Your task to perform on an android device: change the clock display to analog Image 0: 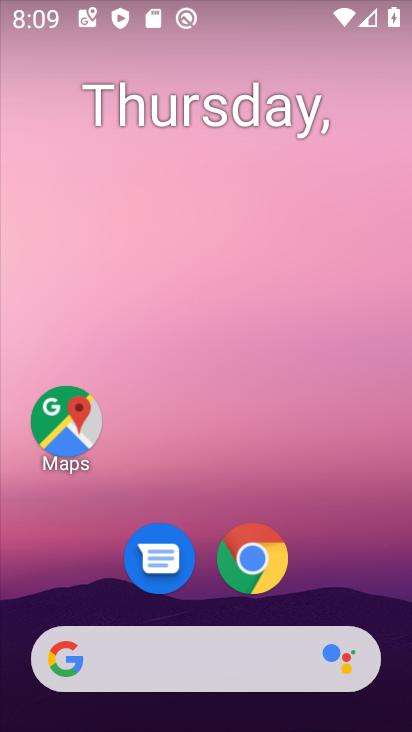
Step 0: drag from (185, 618) to (235, 94)
Your task to perform on an android device: change the clock display to analog Image 1: 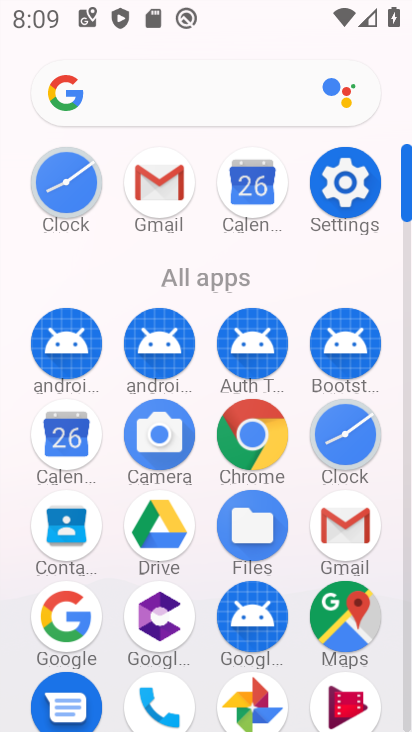
Step 1: click (351, 430)
Your task to perform on an android device: change the clock display to analog Image 2: 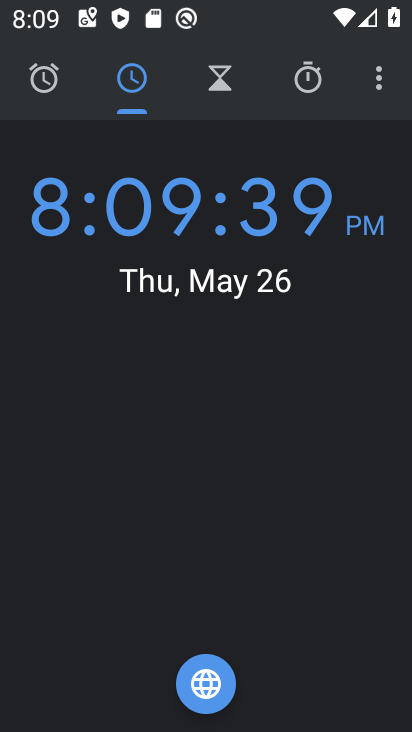
Step 2: click (381, 77)
Your task to perform on an android device: change the clock display to analog Image 3: 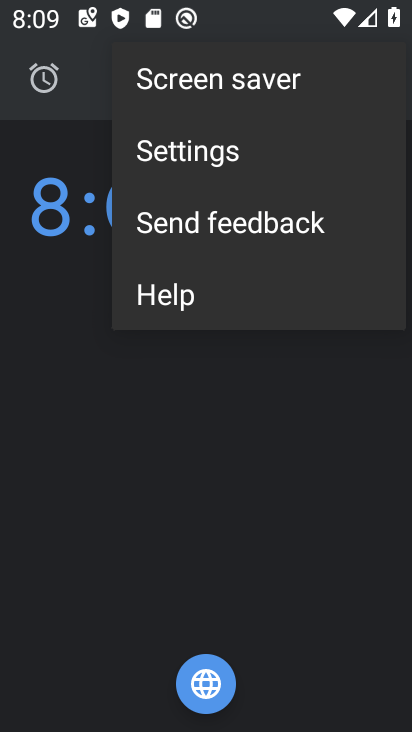
Step 3: click (223, 158)
Your task to perform on an android device: change the clock display to analog Image 4: 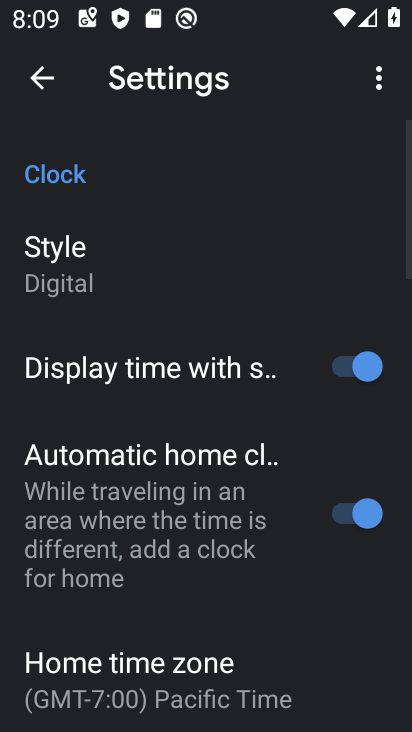
Step 4: click (84, 279)
Your task to perform on an android device: change the clock display to analog Image 5: 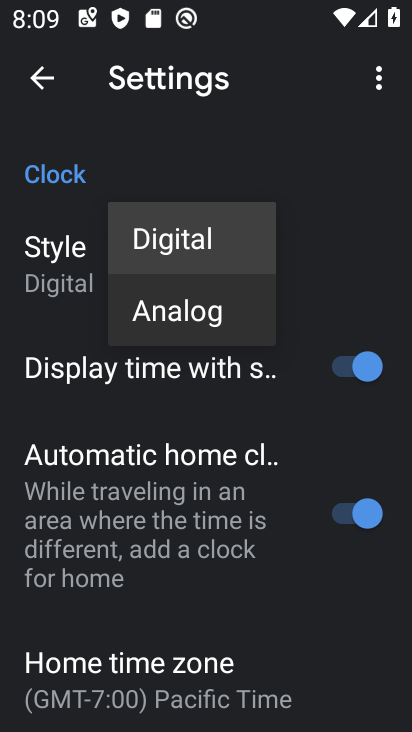
Step 5: click (158, 308)
Your task to perform on an android device: change the clock display to analog Image 6: 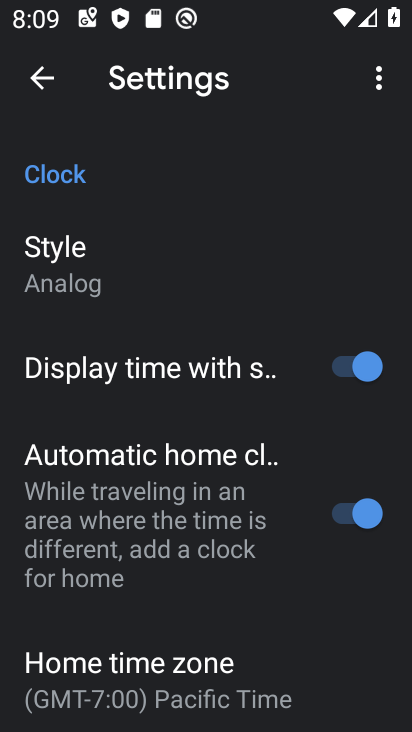
Step 6: task complete